Your task to perform on an android device: snooze an email in the gmail app Image 0: 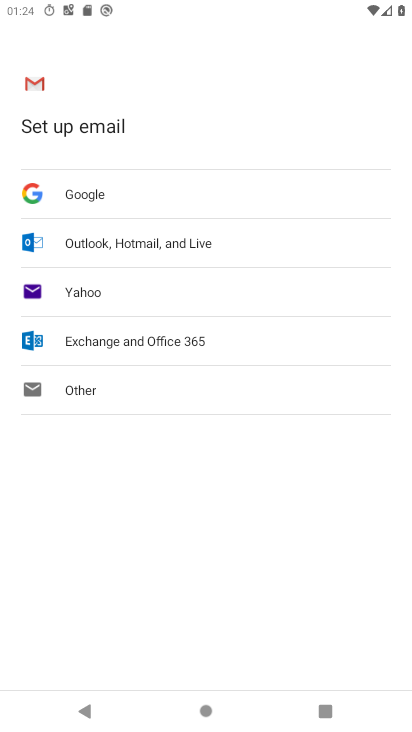
Step 0: press home button
Your task to perform on an android device: snooze an email in the gmail app Image 1: 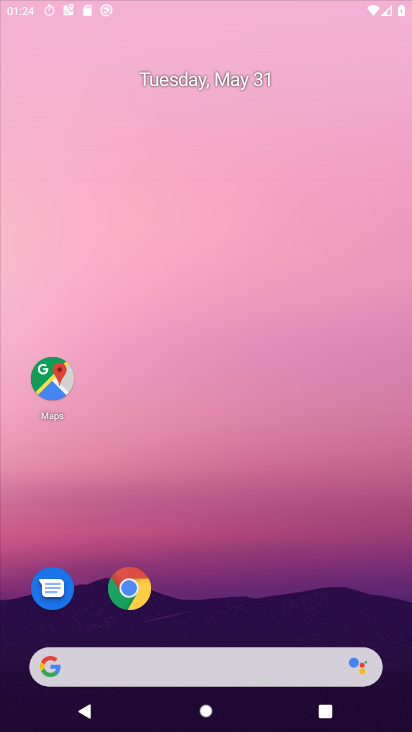
Step 1: drag from (301, 689) to (352, 81)
Your task to perform on an android device: snooze an email in the gmail app Image 2: 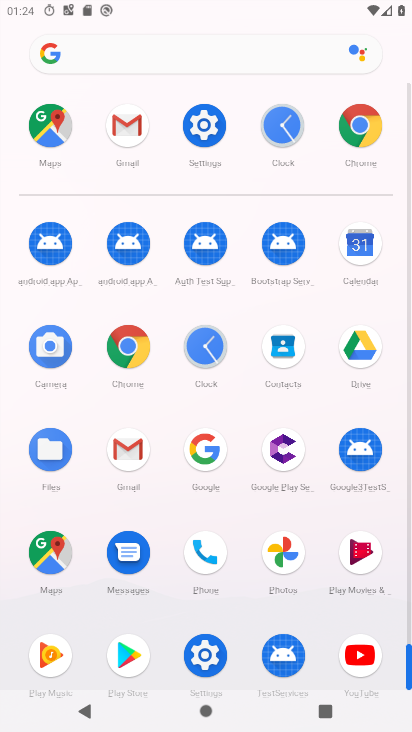
Step 2: click (144, 458)
Your task to perform on an android device: snooze an email in the gmail app Image 3: 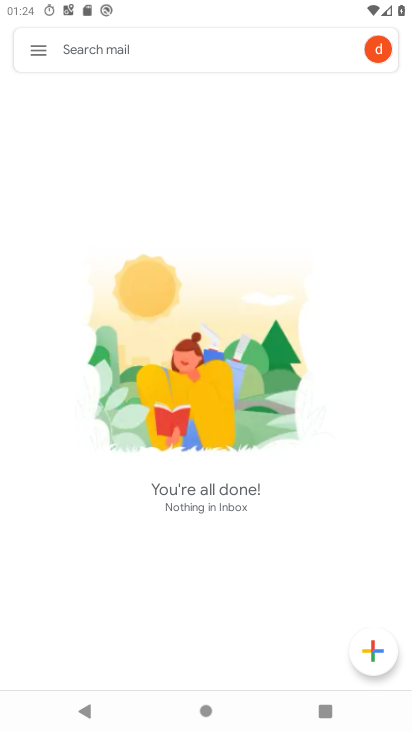
Step 3: click (42, 46)
Your task to perform on an android device: snooze an email in the gmail app Image 4: 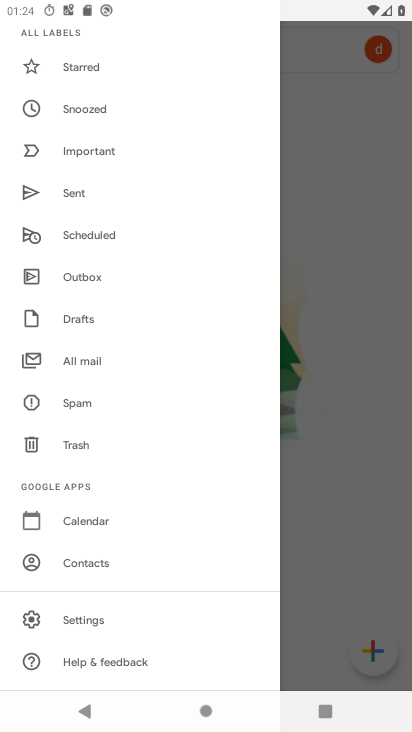
Step 4: click (89, 110)
Your task to perform on an android device: snooze an email in the gmail app Image 5: 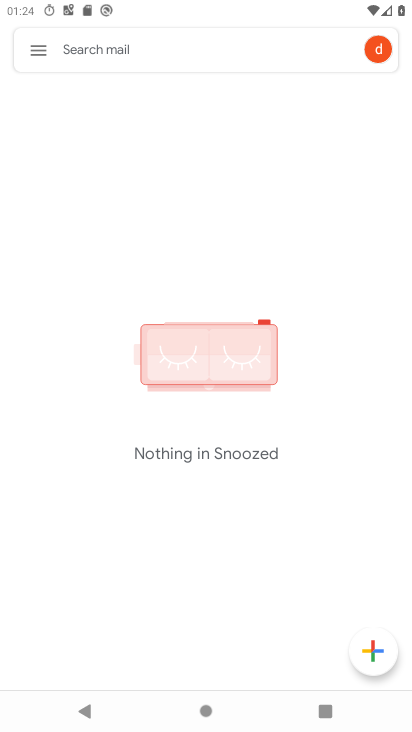
Step 5: task complete